Your task to perform on an android device: change the clock display to digital Image 0: 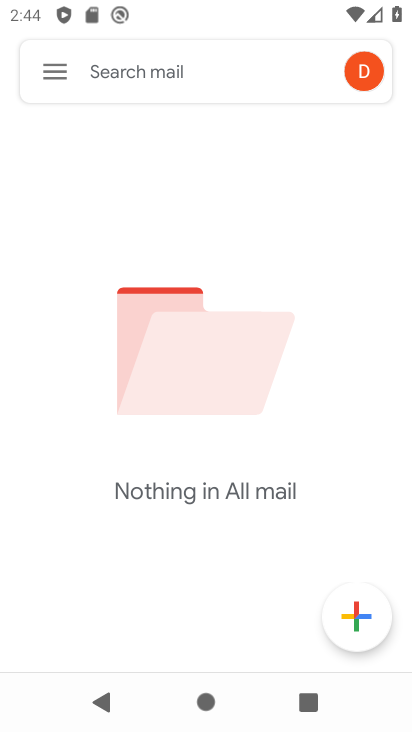
Step 0: press back button
Your task to perform on an android device: change the clock display to digital Image 1: 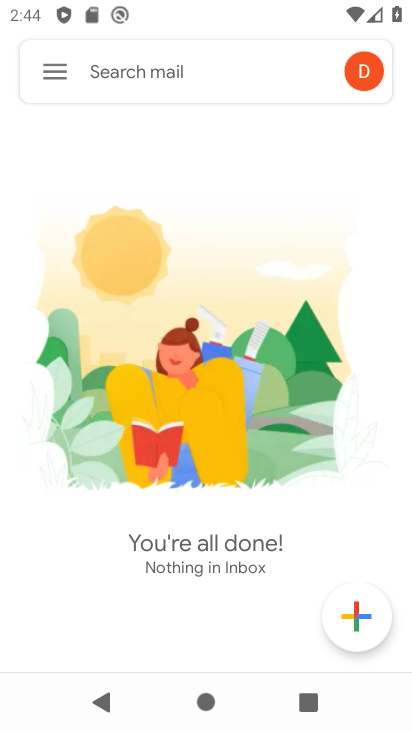
Step 1: press back button
Your task to perform on an android device: change the clock display to digital Image 2: 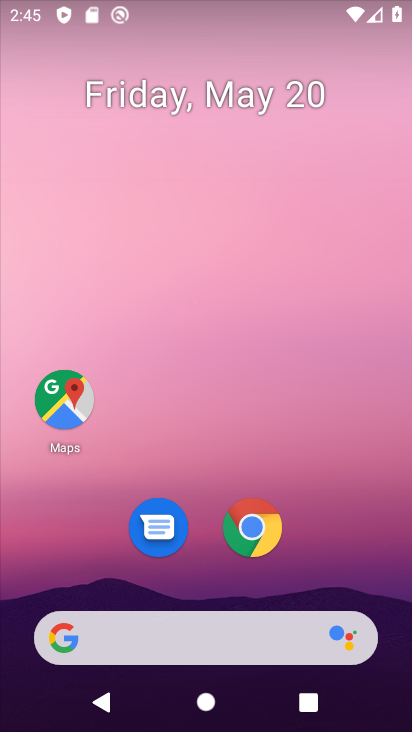
Step 2: drag from (191, 536) to (304, 86)
Your task to perform on an android device: change the clock display to digital Image 3: 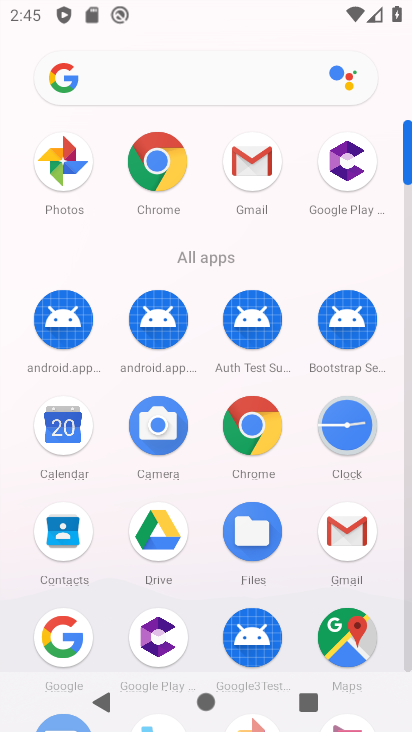
Step 3: click (341, 429)
Your task to perform on an android device: change the clock display to digital Image 4: 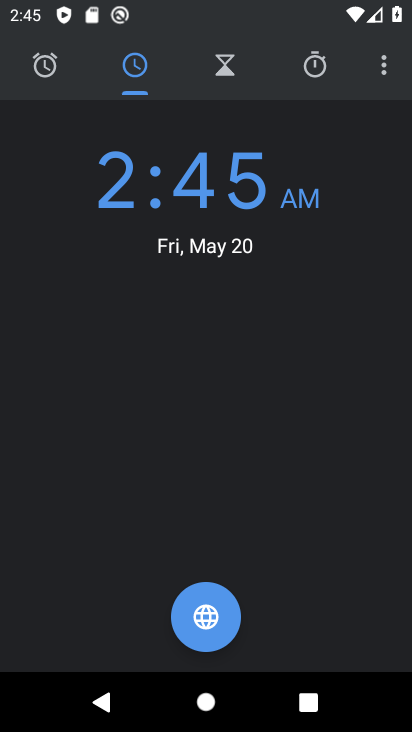
Step 4: click (377, 62)
Your task to perform on an android device: change the clock display to digital Image 5: 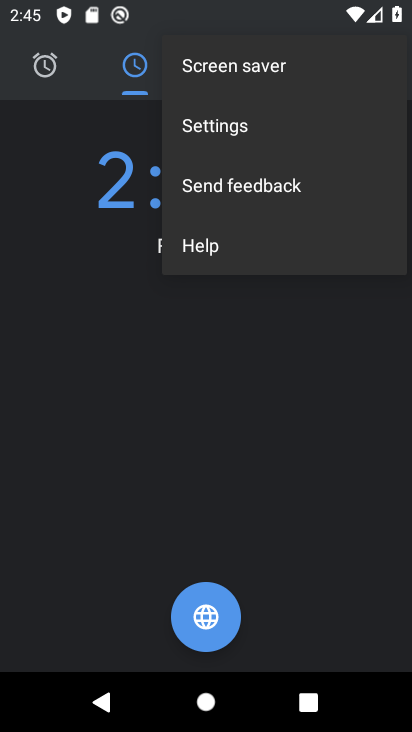
Step 5: click (243, 120)
Your task to perform on an android device: change the clock display to digital Image 6: 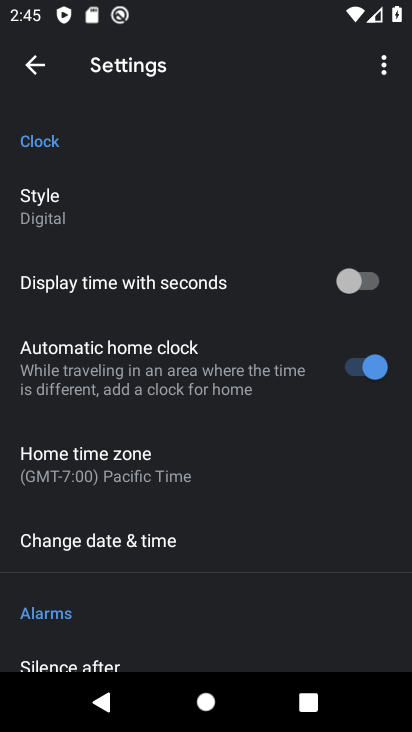
Step 6: task complete